Your task to perform on an android device: Do I have any events today? Image 0: 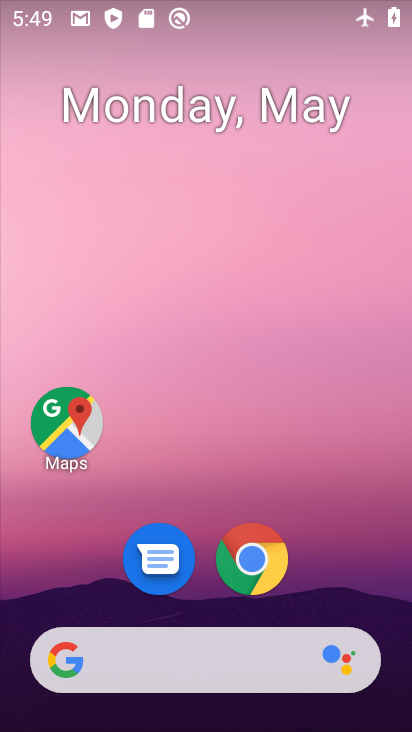
Step 0: drag from (315, 485) to (192, 115)
Your task to perform on an android device: Do I have any events today? Image 1: 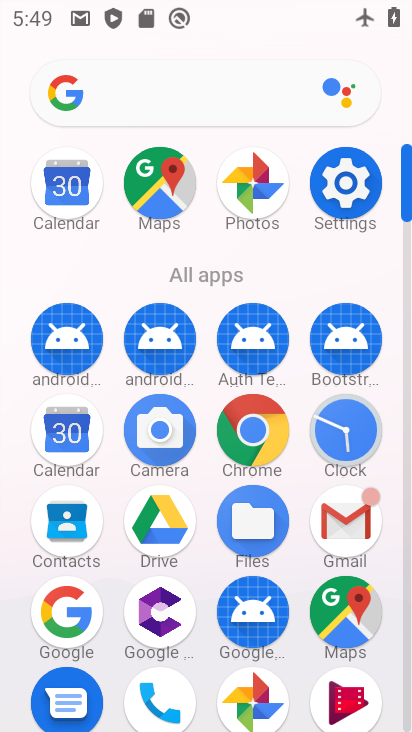
Step 1: click (63, 426)
Your task to perform on an android device: Do I have any events today? Image 2: 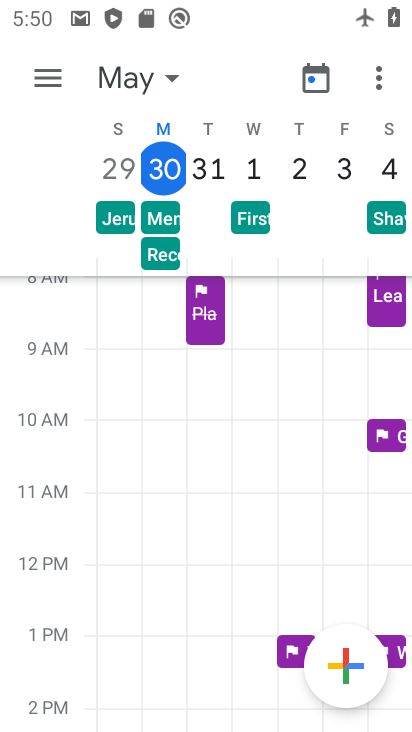
Step 2: click (149, 173)
Your task to perform on an android device: Do I have any events today? Image 3: 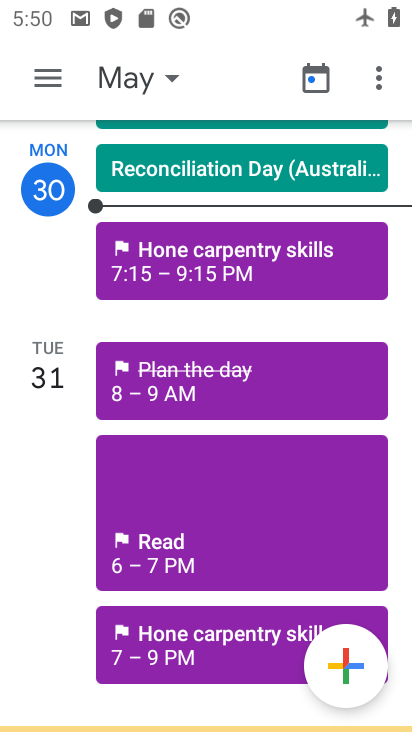
Step 3: drag from (185, 454) to (164, 171)
Your task to perform on an android device: Do I have any events today? Image 4: 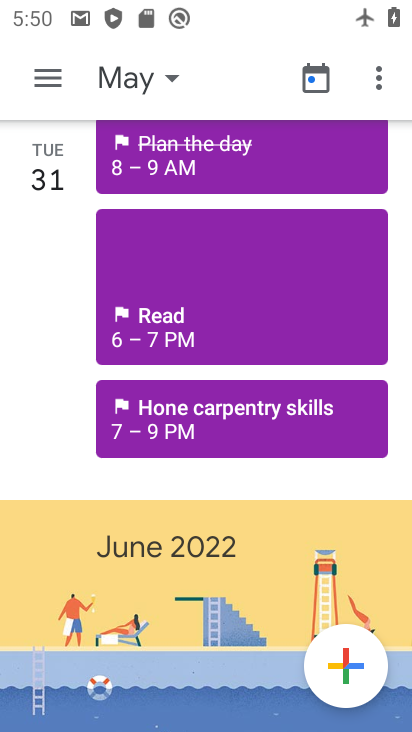
Step 4: click (42, 73)
Your task to perform on an android device: Do I have any events today? Image 5: 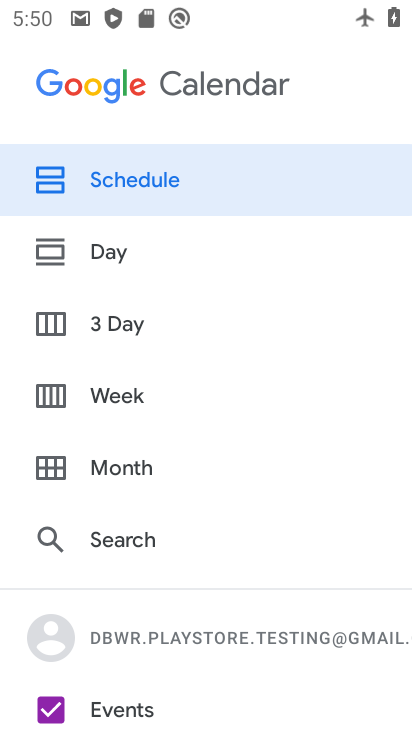
Step 5: click (119, 244)
Your task to perform on an android device: Do I have any events today? Image 6: 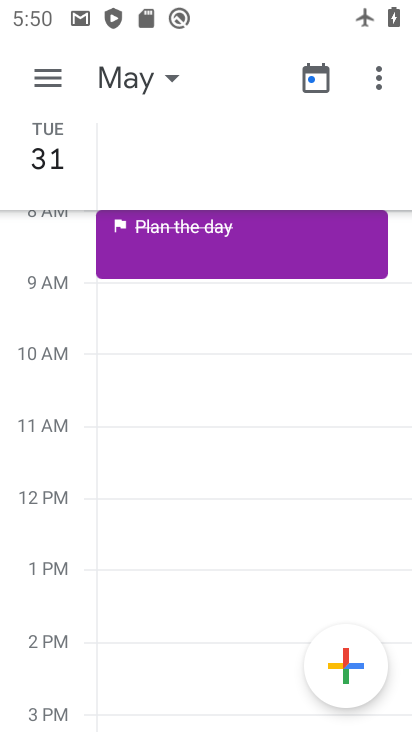
Step 6: task complete